Your task to perform on an android device: toggle airplane mode Image 0: 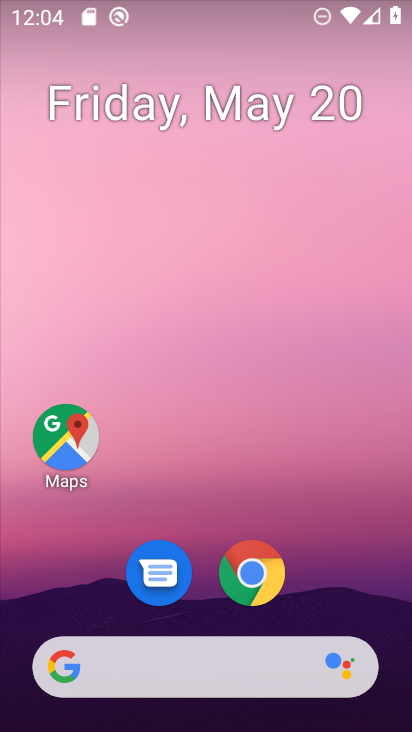
Step 0: drag from (179, 638) to (199, 1)
Your task to perform on an android device: toggle airplane mode Image 1: 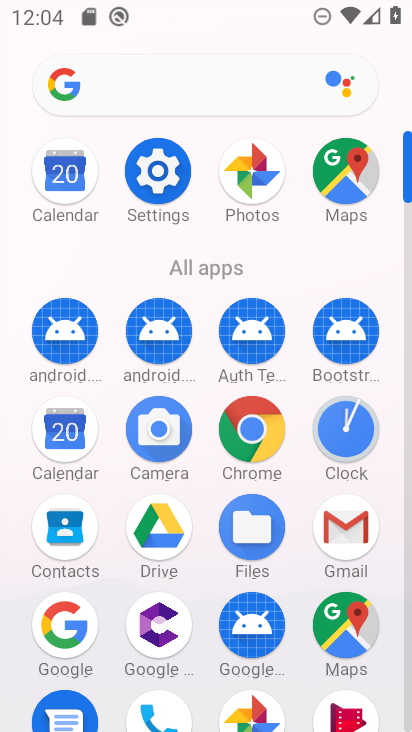
Step 1: click (153, 178)
Your task to perform on an android device: toggle airplane mode Image 2: 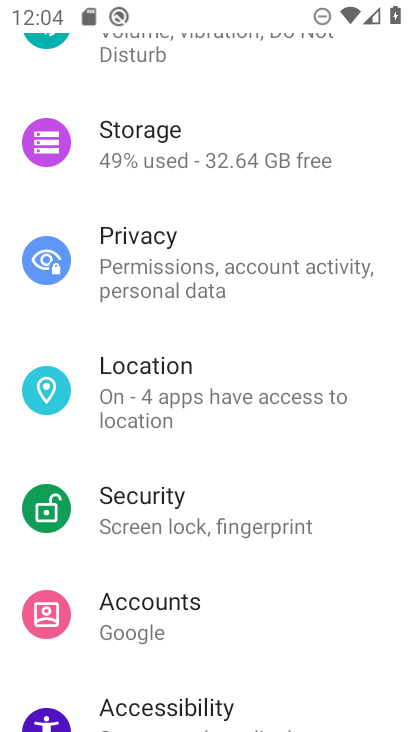
Step 2: drag from (195, 137) to (224, 592)
Your task to perform on an android device: toggle airplane mode Image 3: 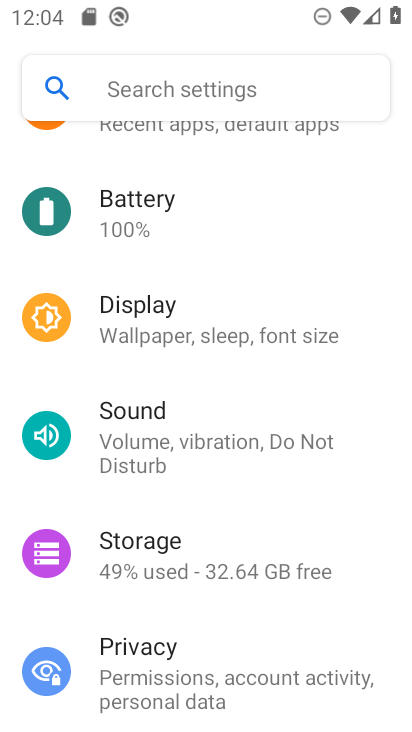
Step 3: drag from (234, 215) to (234, 628)
Your task to perform on an android device: toggle airplane mode Image 4: 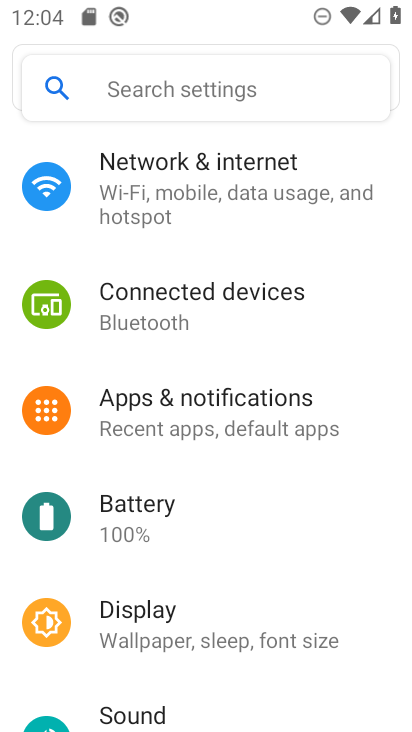
Step 4: drag from (193, 186) to (210, 610)
Your task to perform on an android device: toggle airplane mode Image 5: 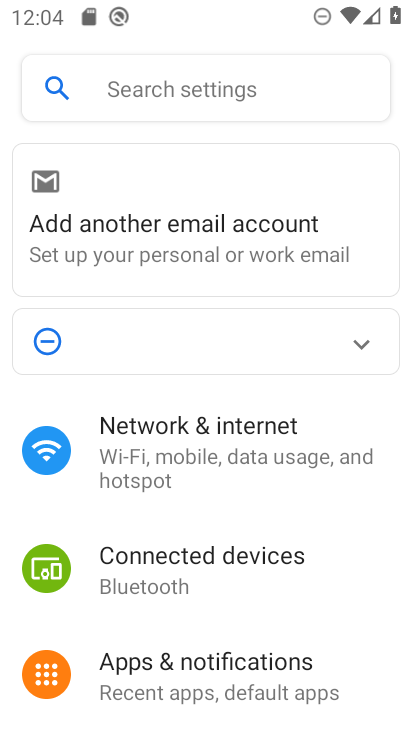
Step 5: click (195, 439)
Your task to perform on an android device: toggle airplane mode Image 6: 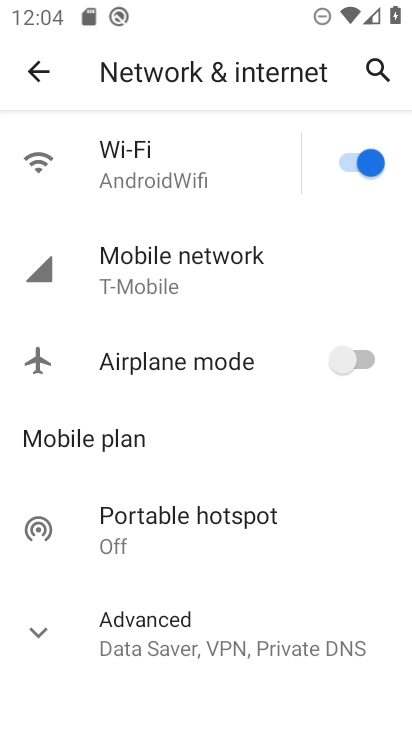
Step 6: click (367, 359)
Your task to perform on an android device: toggle airplane mode Image 7: 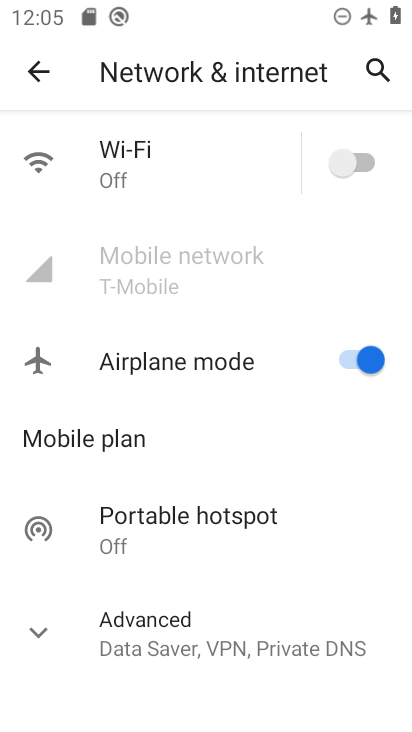
Step 7: task complete